Your task to perform on an android device: turn on sleep mode Image 0: 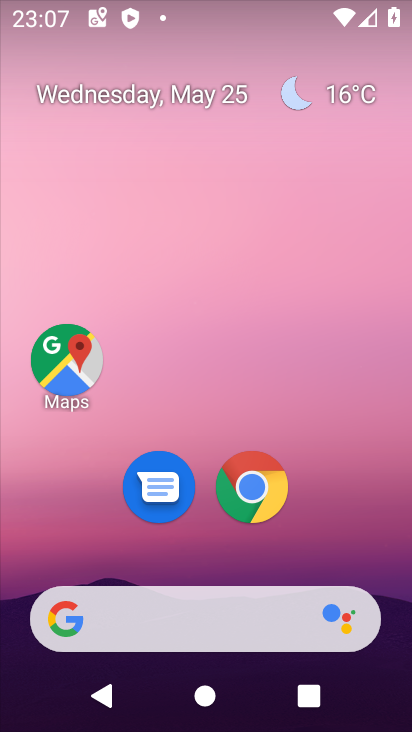
Step 0: drag from (171, 694) to (287, 71)
Your task to perform on an android device: turn on sleep mode Image 1: 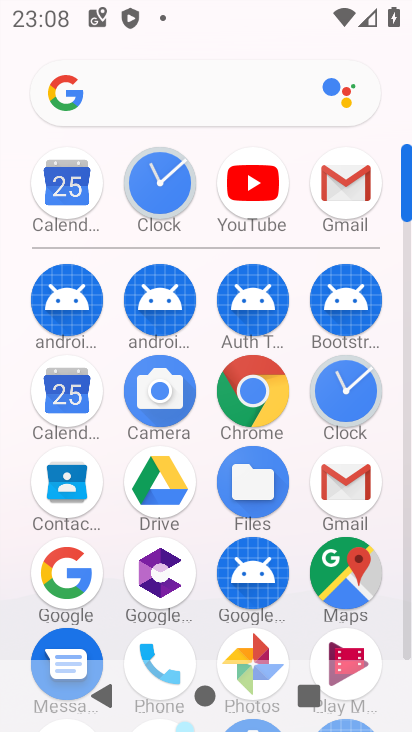
Step 1: drag from (253, 591) to (237, 112)
Your task to perform on an android device: turn on sleep mode Image 2: 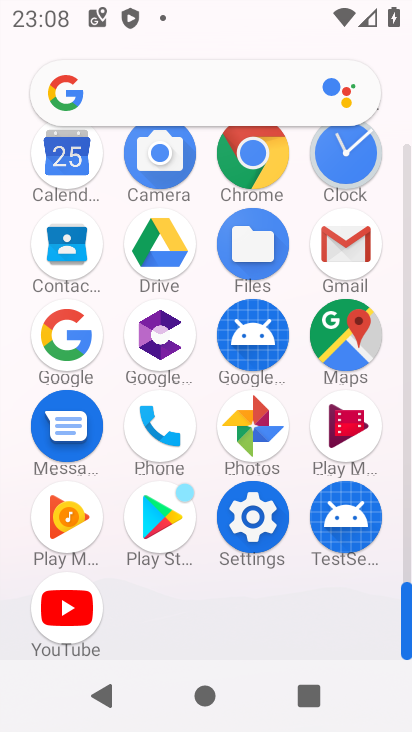
Step 2: click (262, 534)
Your task to perform on an android device: turn on sleep mode Image 3: 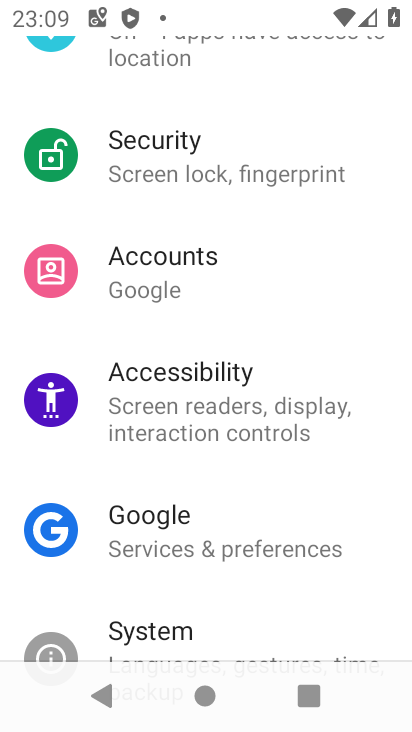
Step 3: drag from (306, 227) to (221, 693)
Your task to perform on an android device: turn on sleep mode Image 4: 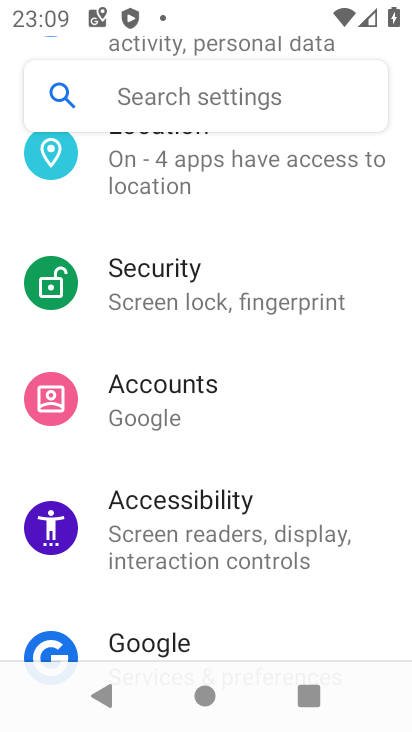
Step 4: drag from (305, 238) to (265, 670)
Your task to perform on an android device: turn on sleep mode Image 5: 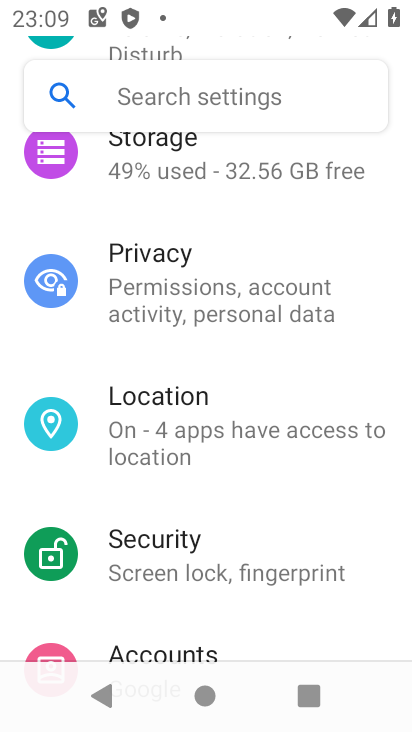
Step 5: drag from (322, 201) to (304, 731)
Your task to perform on an android device: turn on sleep mode Image 6: 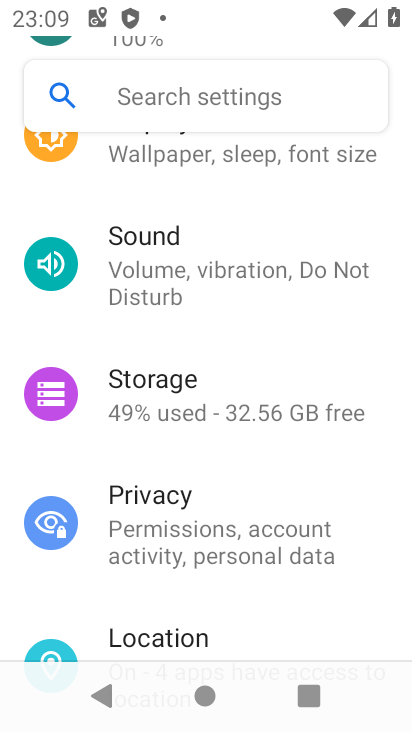
Step 6: click (318, 160)
Your task to perform on an android device: turn on sleep mode Image 7: 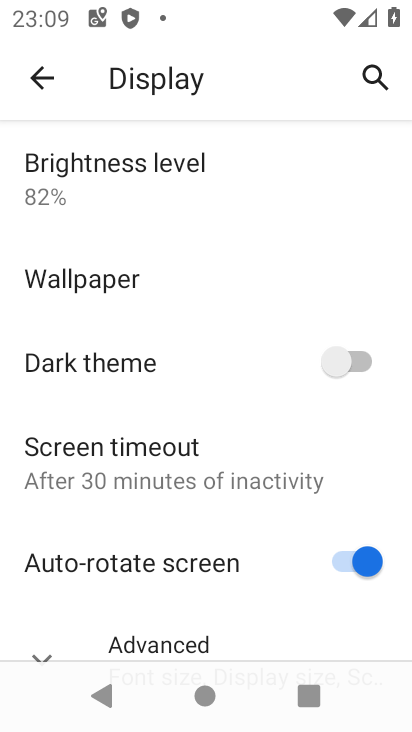
Step 7: task complete